Your task to perform on an android device: See recent photos Image 0: 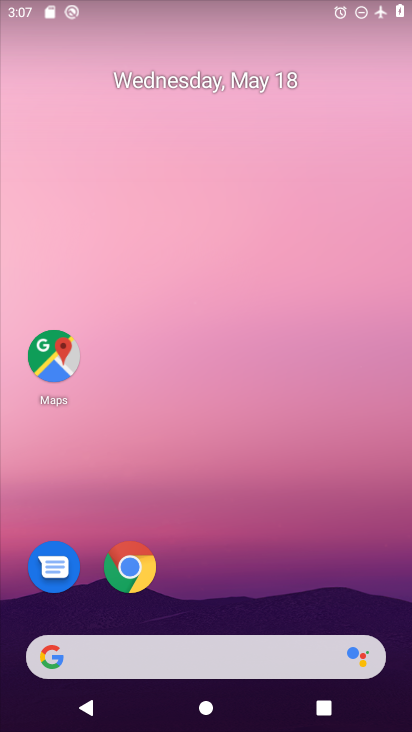
Step 0: drag from (277, 599) to (274, 266)
Your task to perform on an android device: See recent photos Image 1: 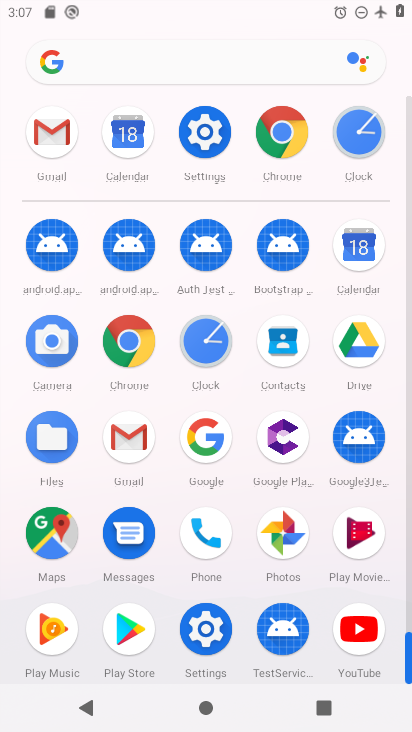
Step 1: click (280, 512)
Your task to perform on an android device: See recent photos Image 2: 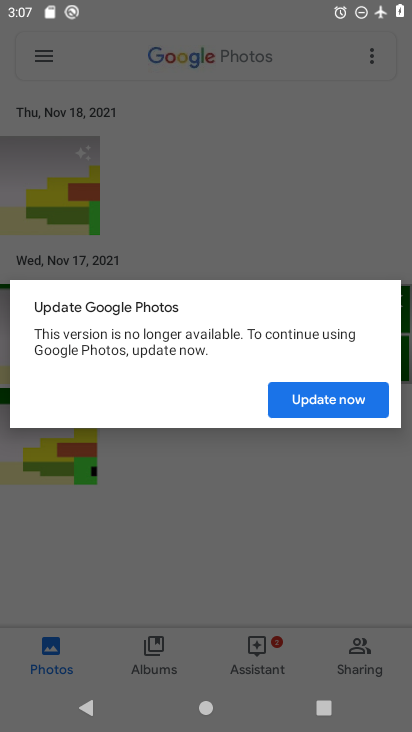
Step 2: click (342, 389)
Your task to perform on an android device: See recent photos Image 3: 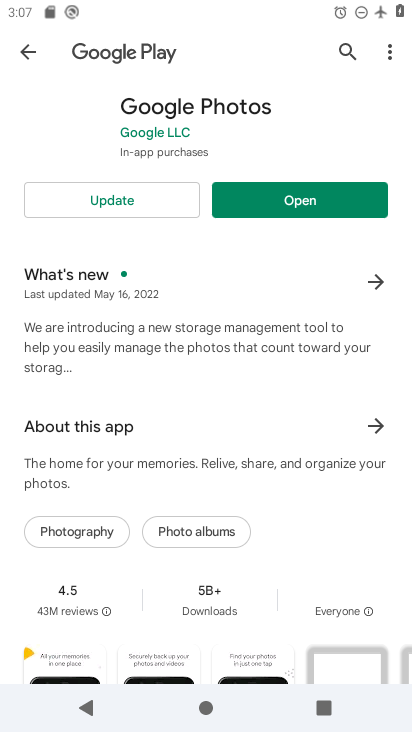
Step 3: press back button
Your task to perform on an android device: See recent photos Image 4: 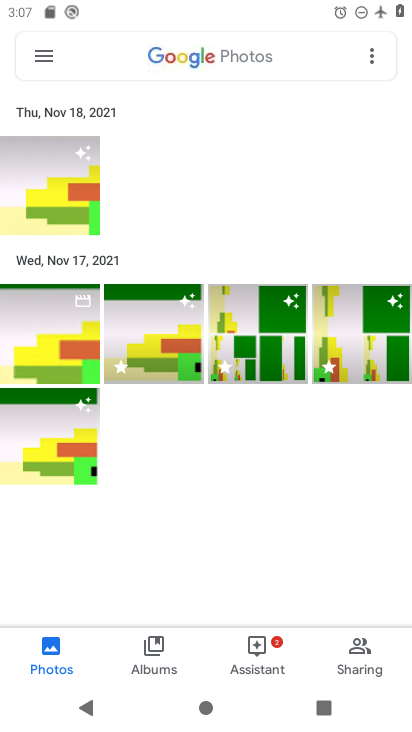
Step 4: click (54, 313)
Your task to perform on an android device: See recent photos Image 5: 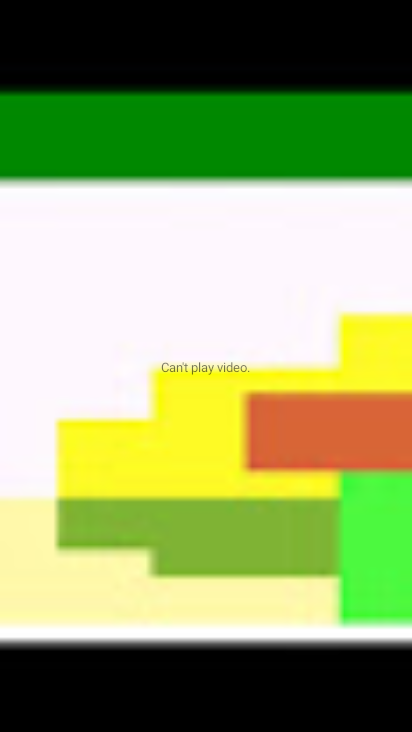
Step 5: task complete